Your task to perform on an android device: Show me productivity apps on the Play Store Image 0: 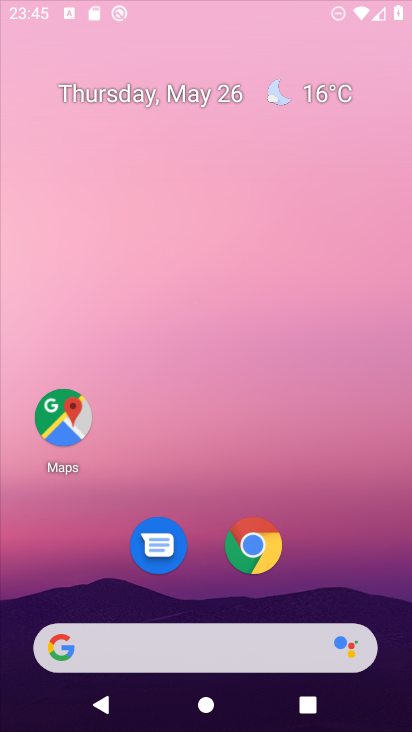
Step 0: press home button
Your task to perform on an android device: Show me productivity apps on the Play Store Image 1: 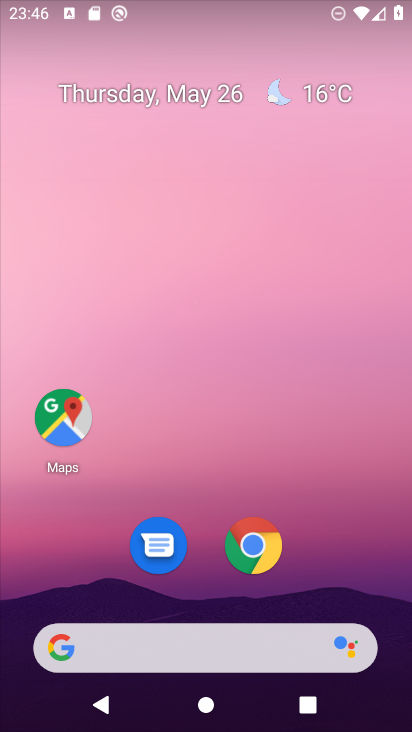
Step 1: drag from (297, 601) to (369, 248)
Your task to perform on an android device: Show me productivity apps on the Play Store Image 2: 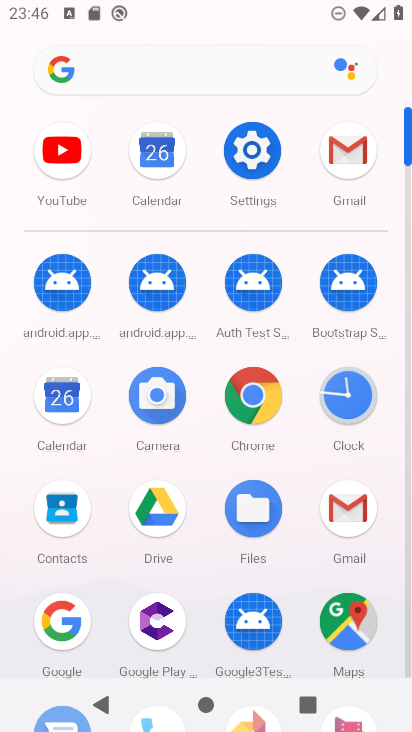
Step 2: drag from (379, 571) to (366, 316)
Your task to perform on an android device: Show me productivity apps on the Play Store Image 3: 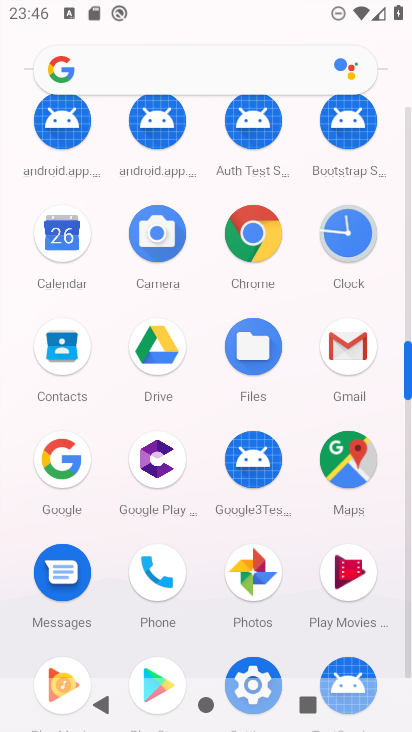
Step 3: drag from (392, 576) to (392, 246)
Your task to perform on an android device: Show me productivity apps on the Play Store Image 4: 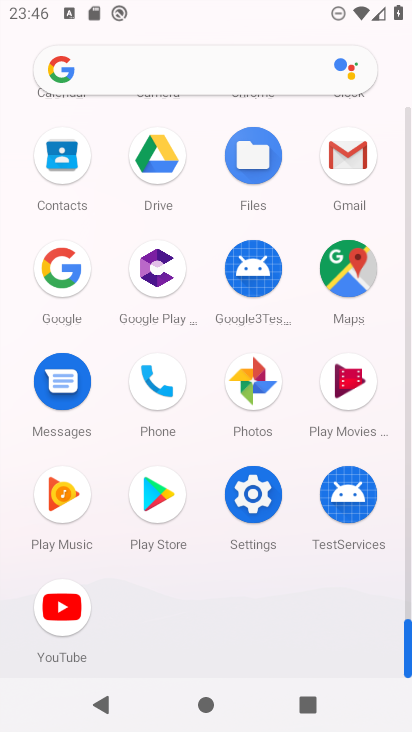
Step 4: click (151, 499)
Your task to perform on an android device: Show me productivity apps on the Play Store Image 5: 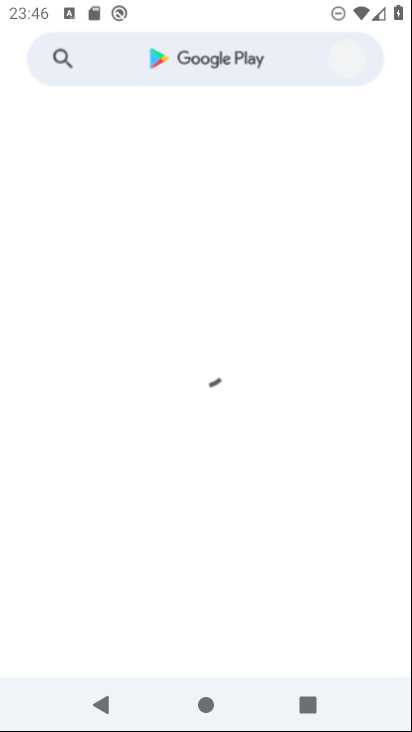
Step 5: click (159, 498)
Your task to perform on an android device: Show me productivity apps on the Play Store Image 6: 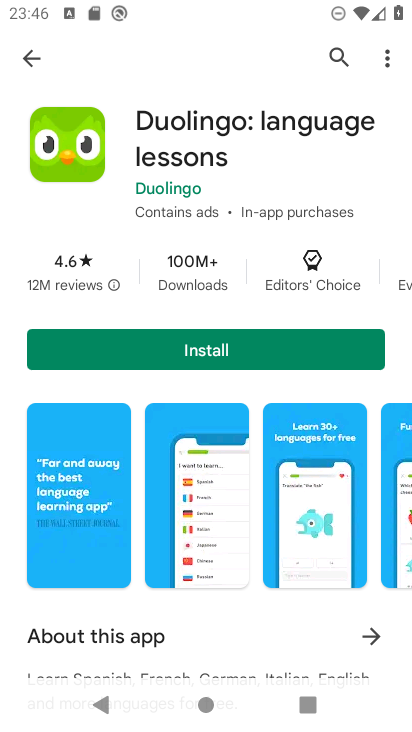
Step 6: drag from (241, 624) to (226, 0)
Your task to perform on an android device: Show me productivity apps on the Play Store Image 7: 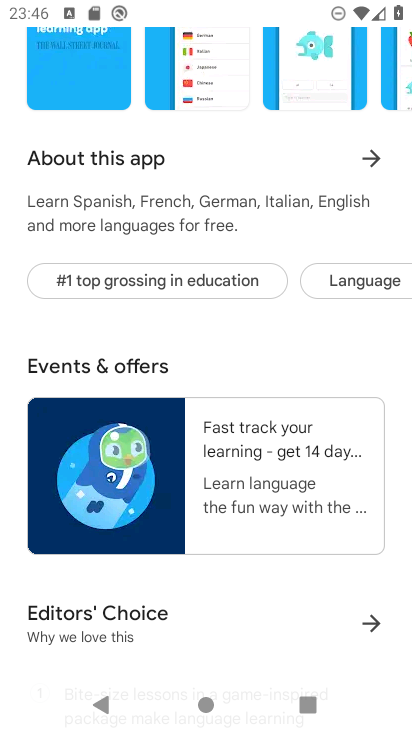
Step 7: drag from (235, 200) to (169, 715)
Your task to perform on an android device: Show me productivity apps on the Play Store Image 8: 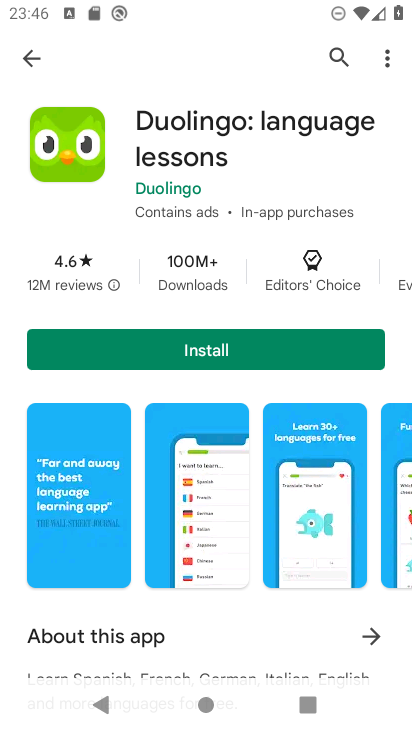
Step 8: click (35, 60)
Your task to perform on an android device: Show me productivity apps on the Play Store Image 9: 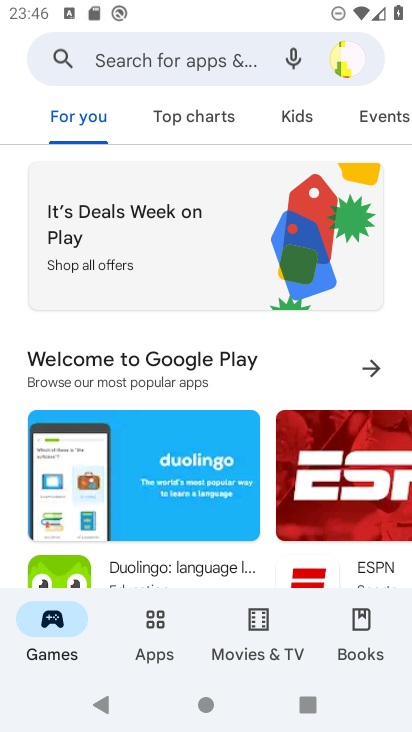
Step 9: click (154, 625)
Your task to perform on an android device: Show me productivity apps on the Play Store Image 10: 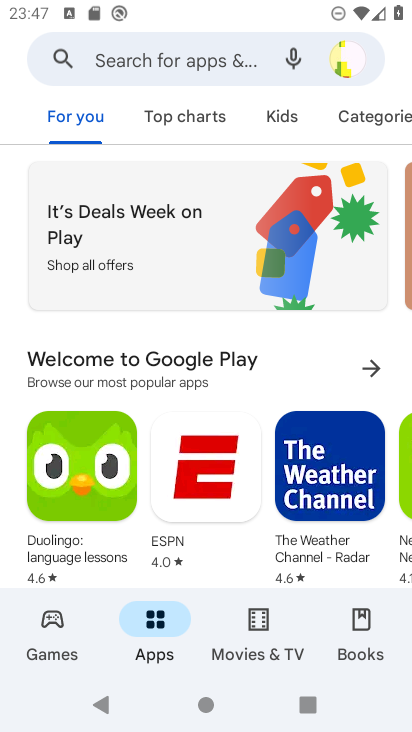
Step 10: click (364, 118)
Your task to perform on an android device: Show me productivity apps on the Play Store Image 11: 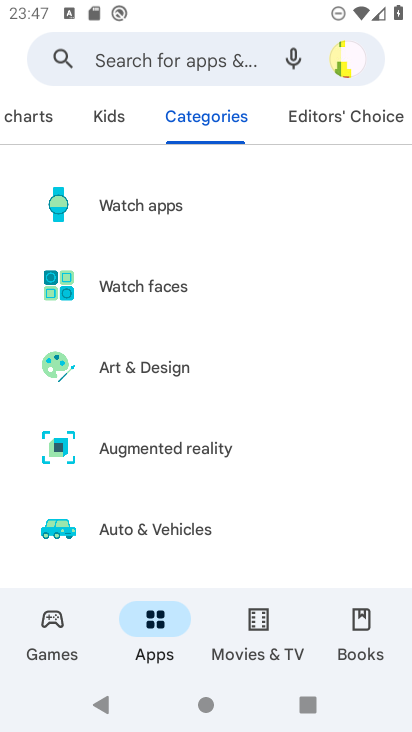
Step 11: drag from (313, 483) to (292, 44)
Your task to perform on an android device: Show me productivity apps on the Play Store Image 12: 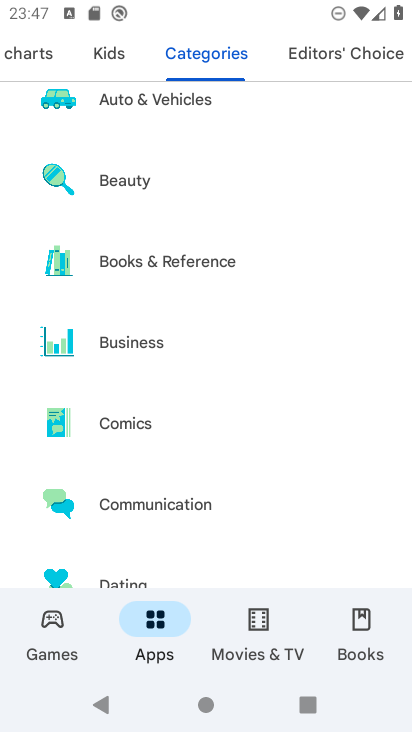
Step 12: drag from (290, 489) to (266, 188)
Your task to perform on an android device: Show me productivity apps on the Play Store Image 13: 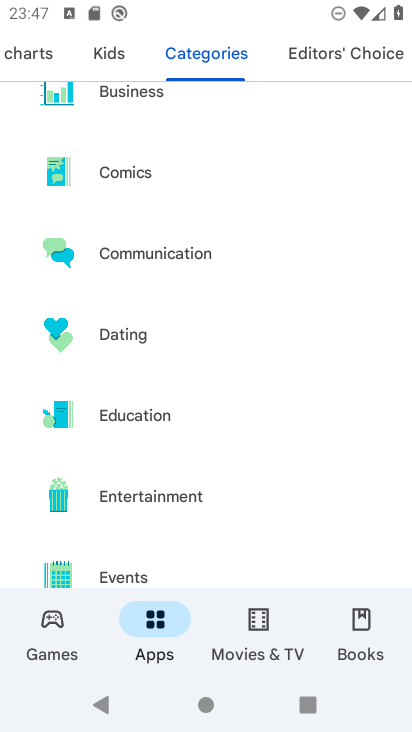
Step 13: drag from (311, 473) to (295, 229)
Your task to perform on an android device: Show me productivity apps on the Play Store Image 14: 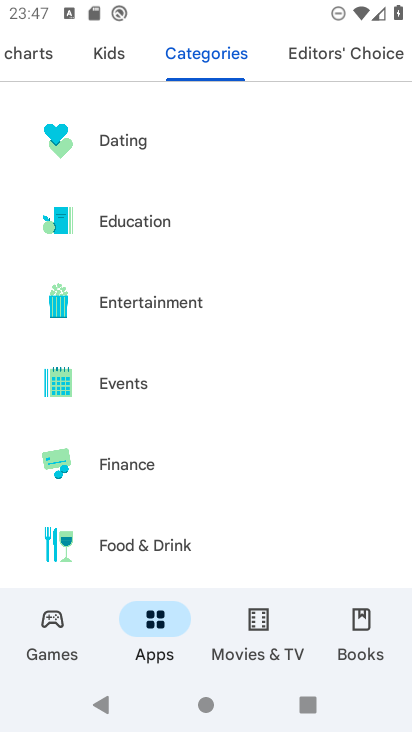
Step 14: drag from (299, 486) to (291, 195)
Your task to perform on an android device: Show me productivity apps on the Play Store Image 15: 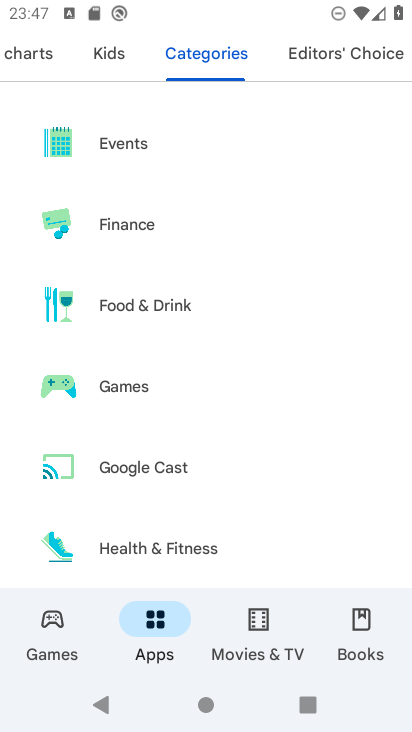
Step 15: drag from (388, 472) to (359, 180)
Your task to perform on an android device: Show me productivity apps on the Play Store Image 16: 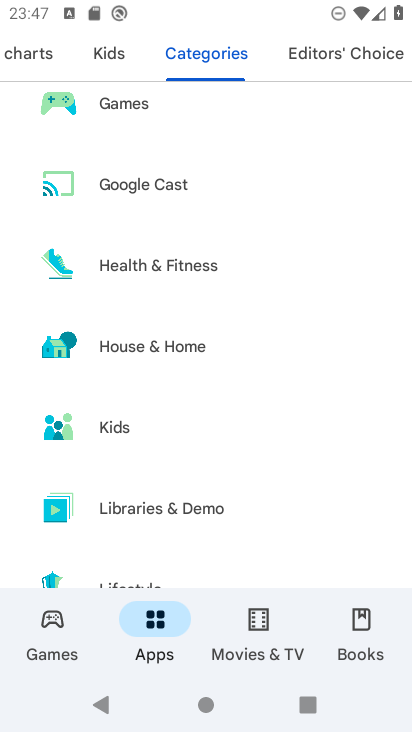
Step 16: drag from (313, 481) to (315, 199)
Your task to perform on an android device: Show me productivity apps on the Play Store Image 17: 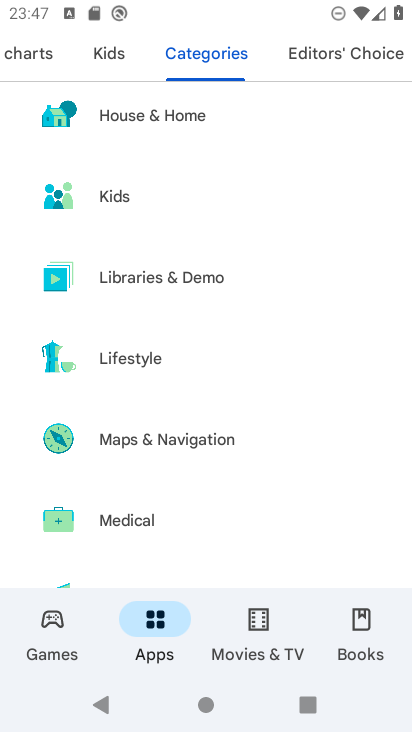
Step 17: drag from (306, 519) to (312, 225)
Your task to perform on an android device: Show me productivity apps on the Play Store Image 18: 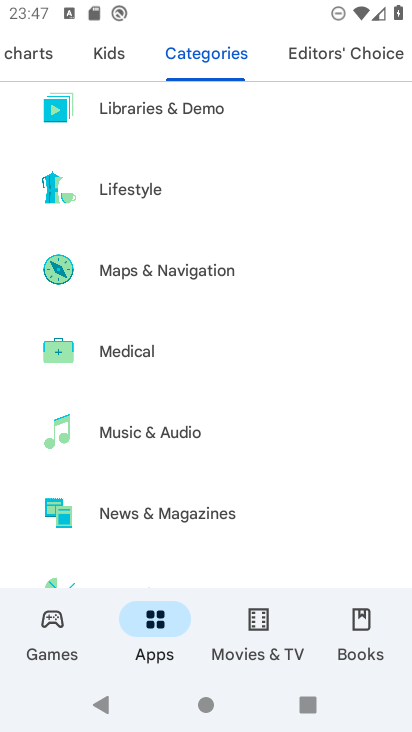
Step 18: drag from (341, 521) to (322, 307)
Your task to perform on an android device: Show me productivity apps on the Play Store Image 19: 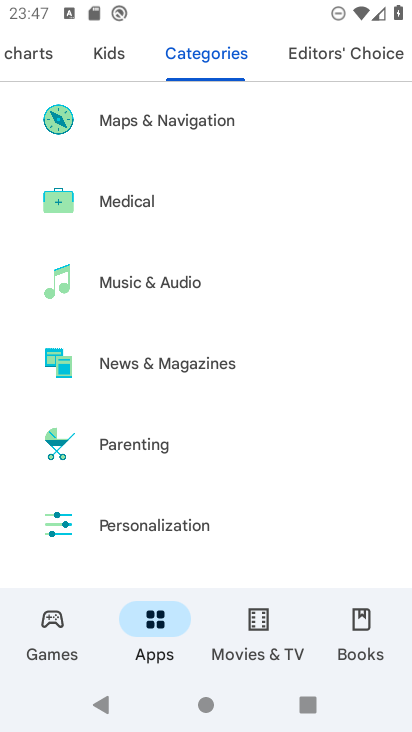
Step 19: drag from (332, 526) to (315, 309)
Your task to perform on an android device: Show me productivity apps on the Play Store Image 20: 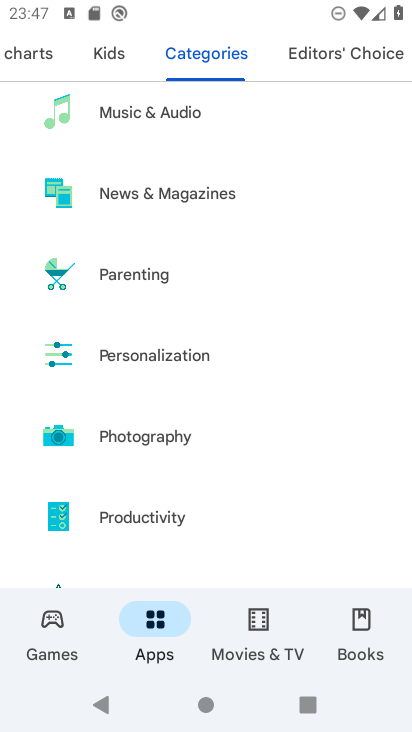
Step 20: click (140, 508)
Your task to perform on an android device: Show me productivity apps on the Play Store Image 21: 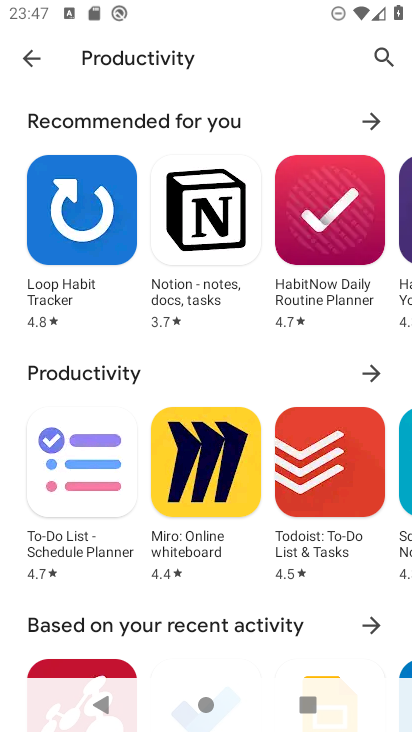
Step 21: task complete